Your task to perform on an android device: move a message to another label in the gmail app Image 0: 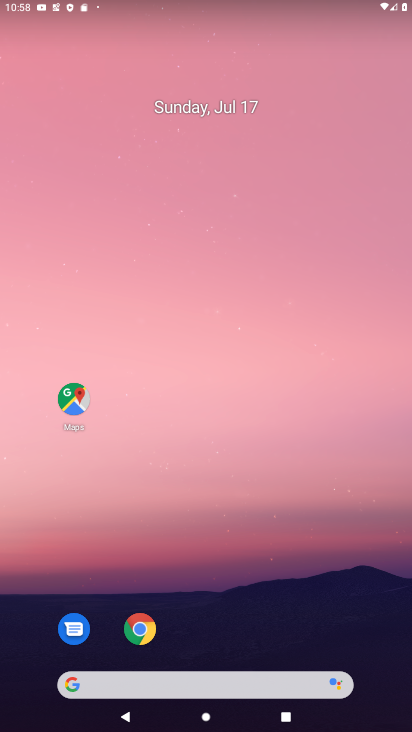
Step 0: drag from (288, 611) to (349, 47)
Your task to perform on an android device: move a message to another label in the gmail app Image 1: 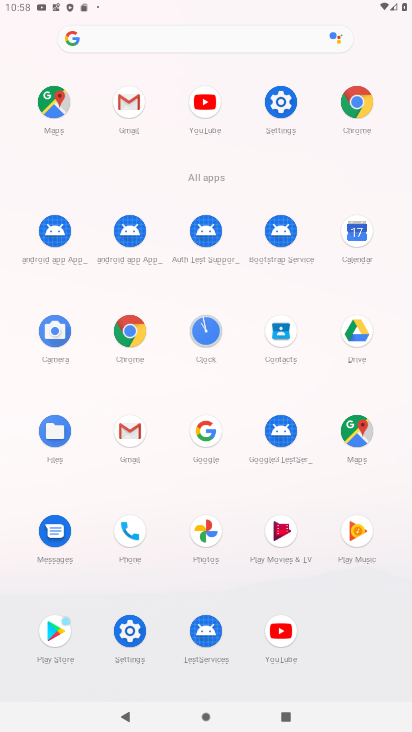
Step 1: click (134, 101)
Your task to perform on an android device: move a message to another label in the gmail app Image 2: 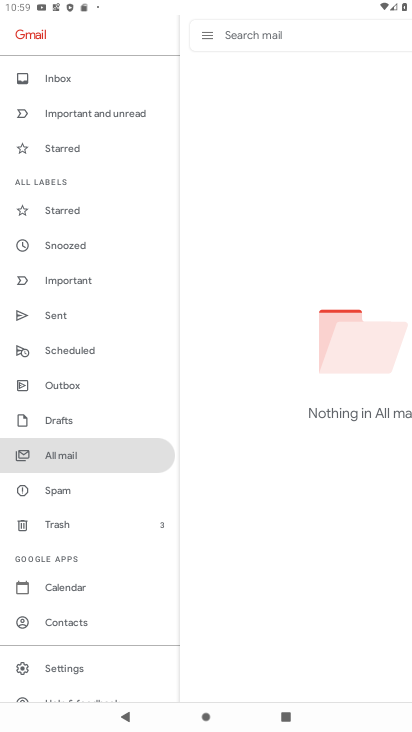
Step 2: click (87, 442)
Your task to perform on an android device: move a message to another label in the gmail app Image 3: 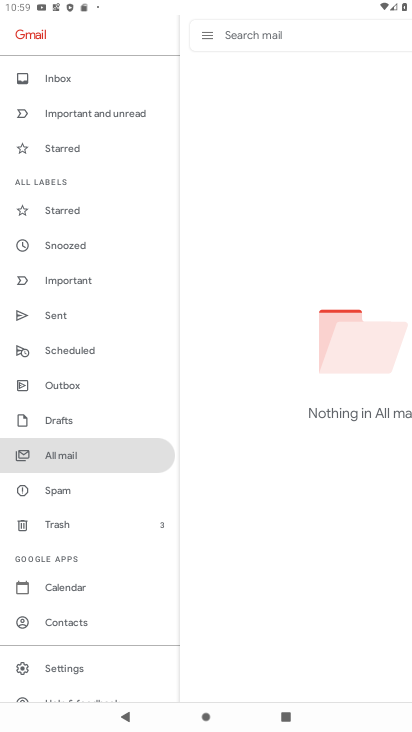
Step 3: task complete